Your task to perform on an android device: toggle airplane mode Image 0: 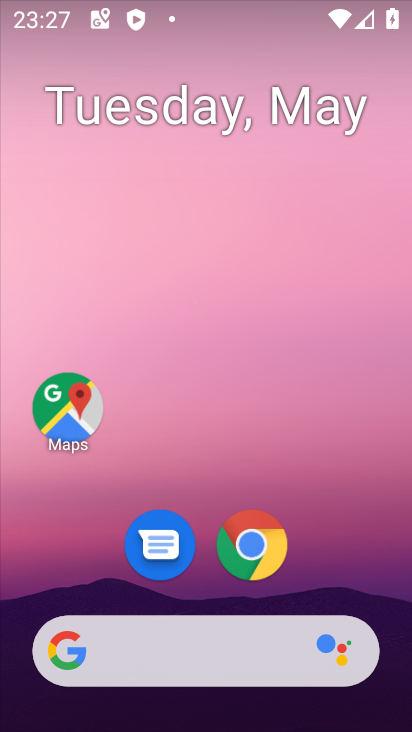
Step 0: drag from (209, 595) to (177, 264)
Your task to perform on an android device: toggle airplane mode Image 1: 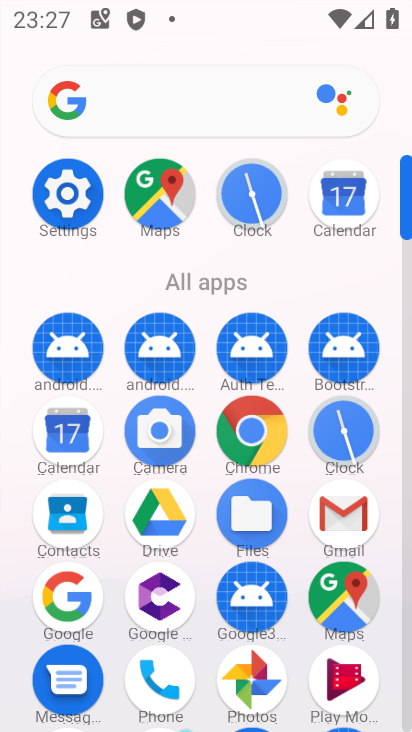
Step 1: click (70, 192)
Your task to perform on an android device: toggle airplane mode Image 2: 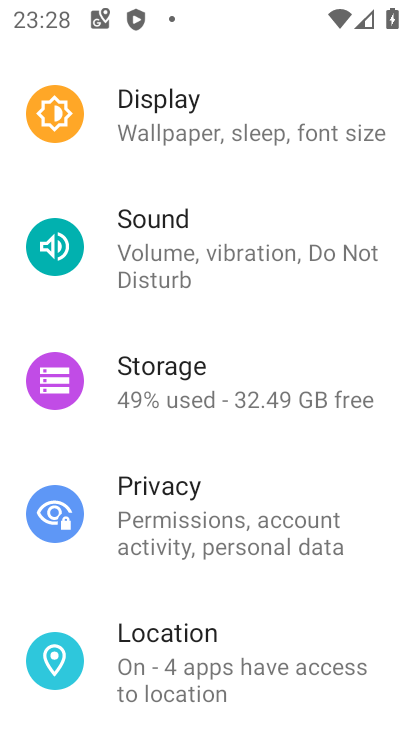
Step 2: drag from (236, 606) to (260, 704)
Your task to perform on an android device: toggle airplane mode Image 3: 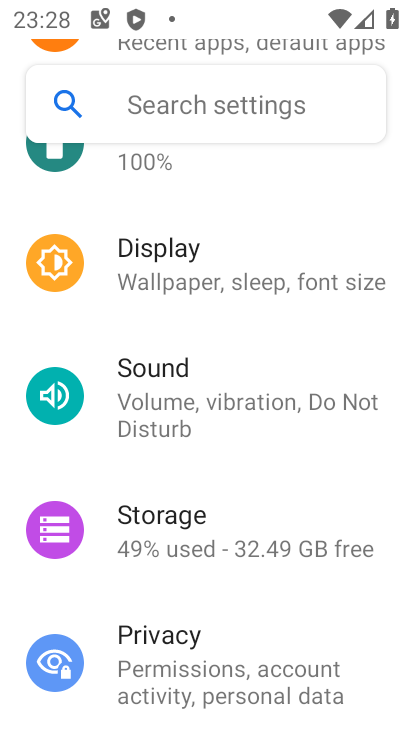
Step 3: drag from (248, 225) to (310, 672)
Your task to perform on an android device: toggle airplane mode Image 4: 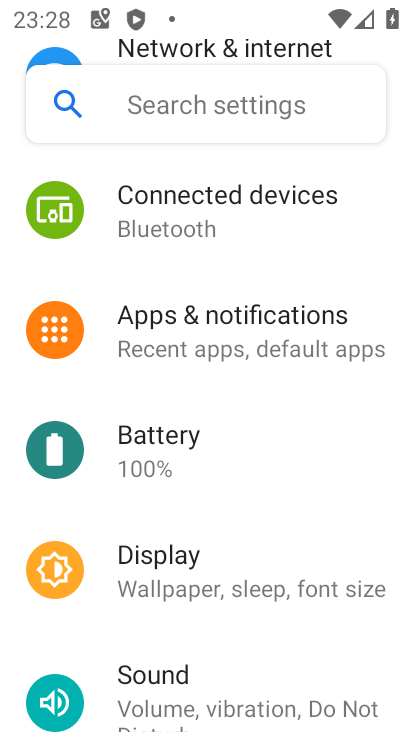
Step 4: drag from (239, 253) to (291, 703)
Your task to perform on an android device: toggle airplane mode Image 5: 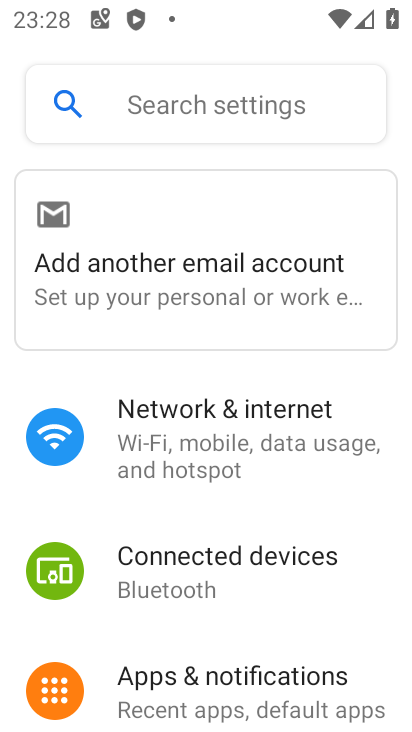
Step 5: click (208, 423)
Your task to perform on an android device: toggle airplane mode Image 6: 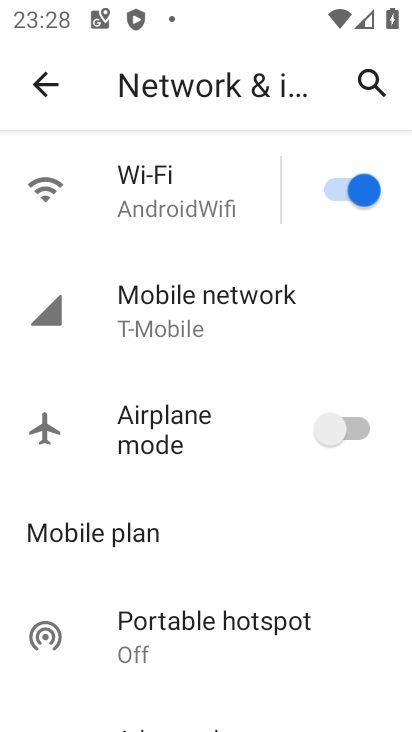
Step 6: click (360, 425)
Your task to perform on an android device: toggle airplane mode Image 7: 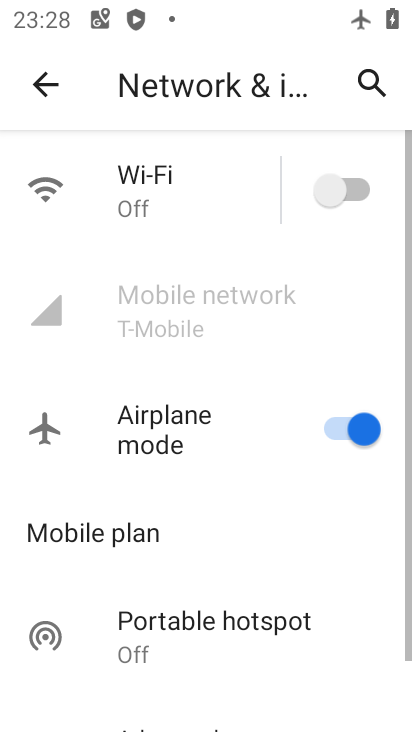
Step 7: task complete